Your task to perform on an android device: check out phone information Image 0: 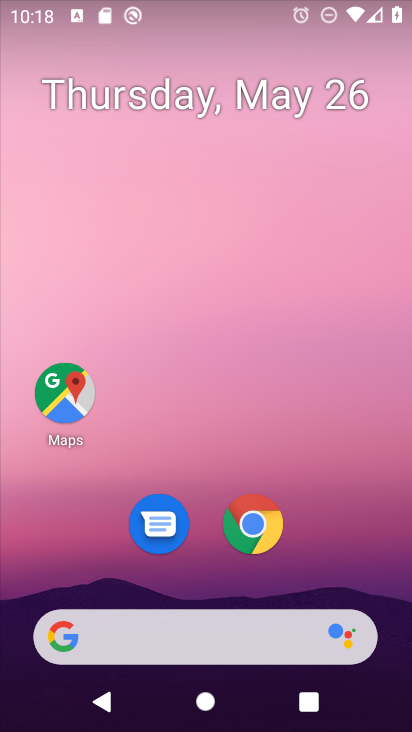
Step 0: drag from (210, 557) to (201, 91)
Your task to perform on an android device: check out phone information Image 1: 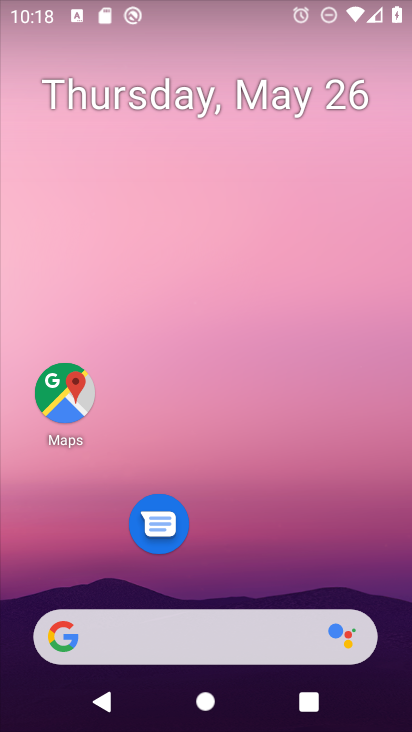
Step 1: drag from (283, 550) to (278, 20)
Your task to perform on an android device: check out phone information Image 2: 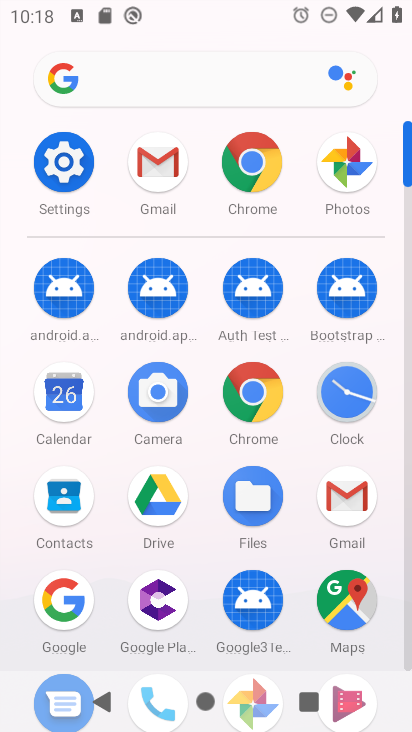
Step 2: drag from (203, 542) to (181, 257)
Your task to perform on an android device: check out phone information Image 3: 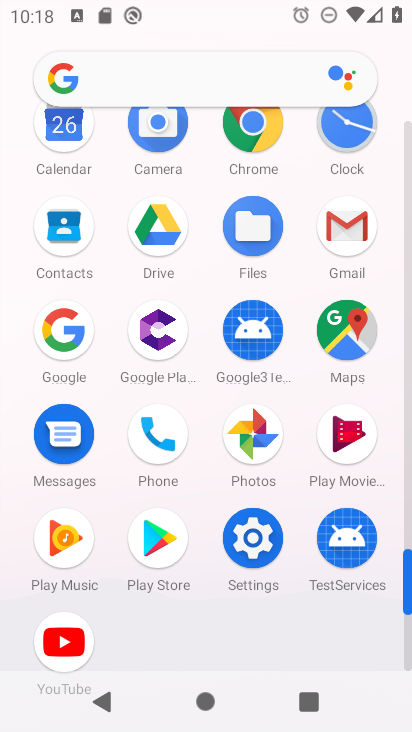
Step 3: click (173, 428)
Your task to perform on an android device: check out phone information Image 4: 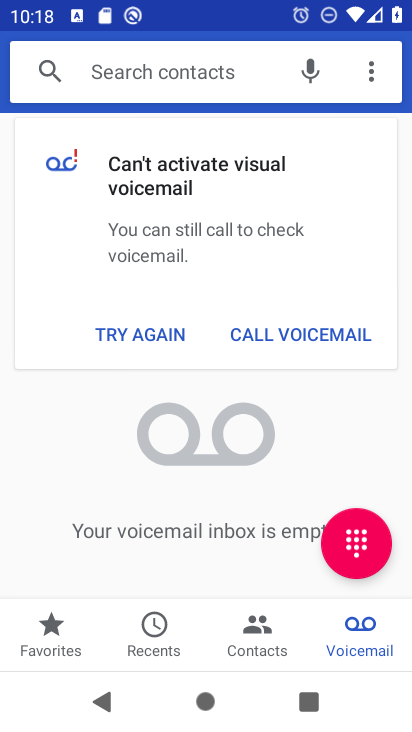
Step 4: click (366, 67)
Your task to perform on an android device: check out phone information Image 5: 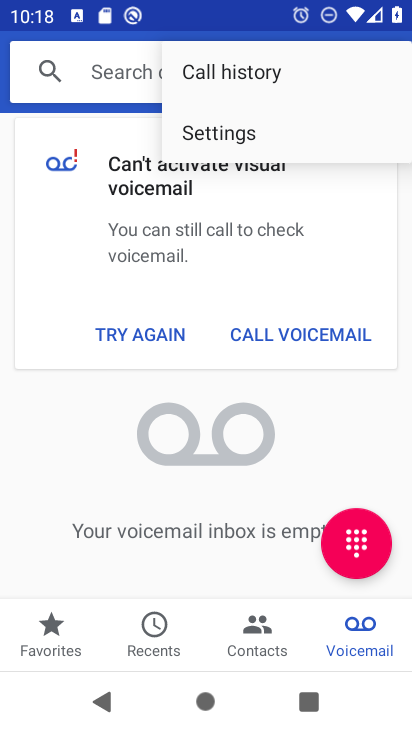
Step 5: click (302, 129)
Your task to perform on an android device: check out phone information Image 6: 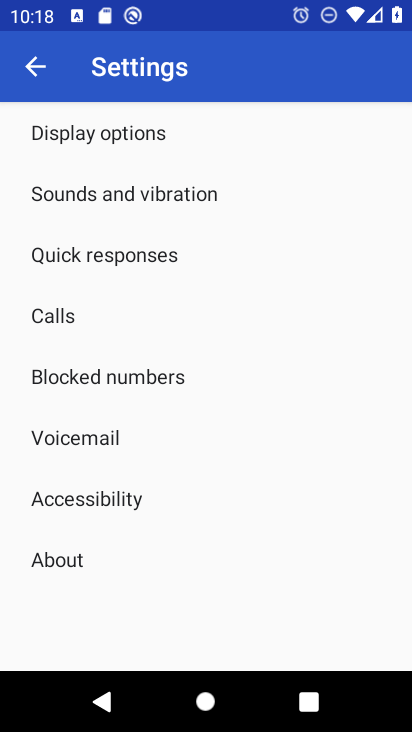
Step 6: click (113, 562)
Your task to perform on an android device: check out phone information Image 7: 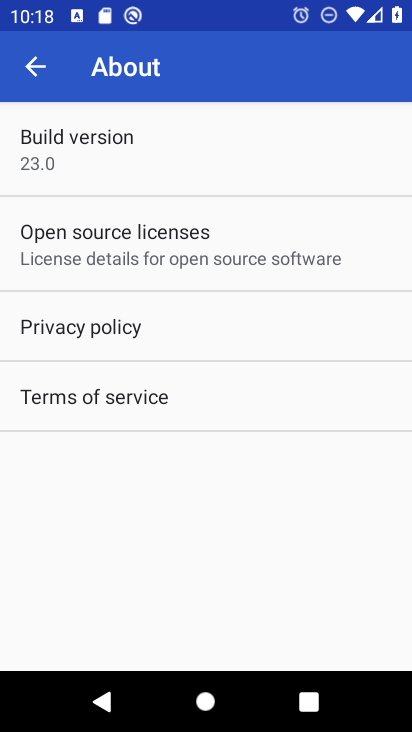
Step 7: task complete